Your task to perform on an android device: turn pop-ups off in chrome Image 0: 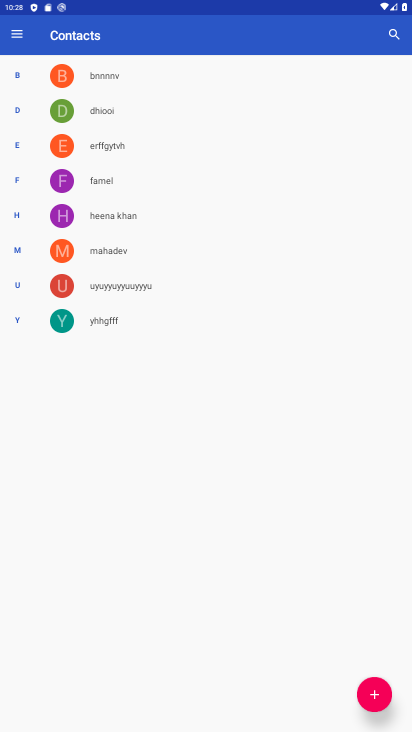
Step 0: press home button
Your task to perform on an android device: turn pop-ups off in chrome Image 1: 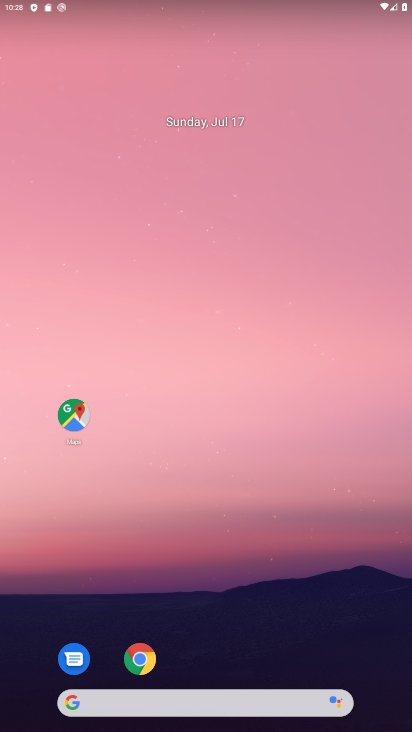
Step 1: drag from (281, 673) to (267, 77)
Your task to perform on an android device: turn pop-ups off in chrome Image 2: 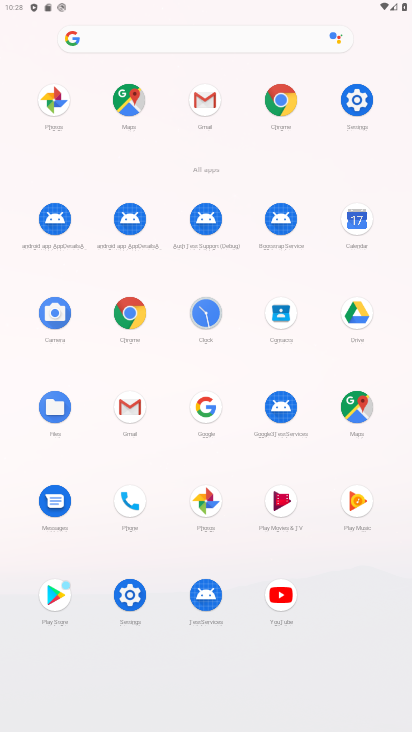
Step 2: click (124, 317)
Your task to perform on an android device: turn pop-ups off in chrome Image 3: 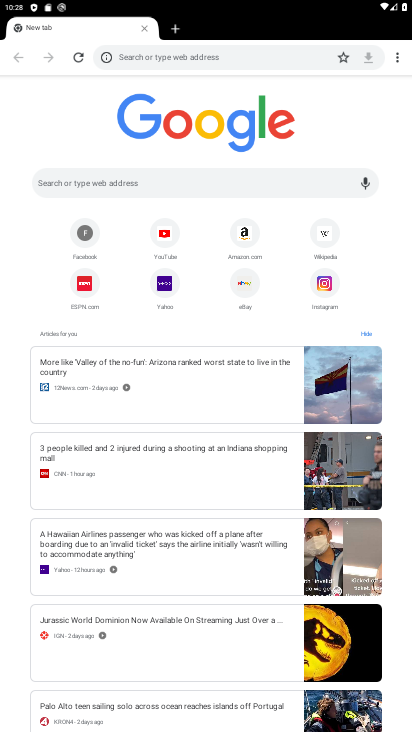
Step 3: drag from (404, 57) to (276, 293)
Your task to perform on an android device: turn pop-ups off in chrome Image 4: 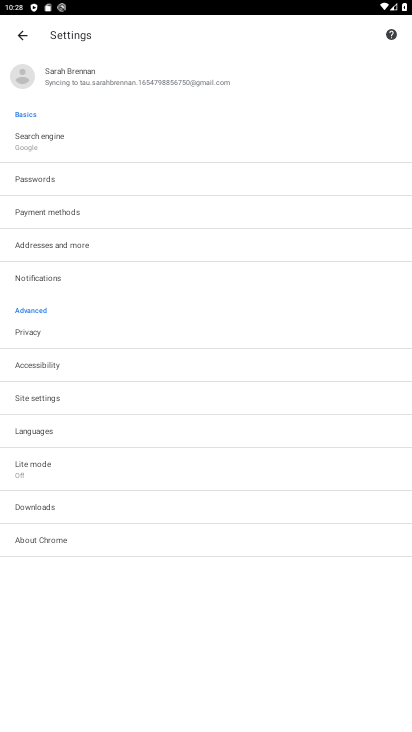
Step 4: click (48, 390)
Your task to perform on an android device: turn pop-ups off in chrome Image 5: 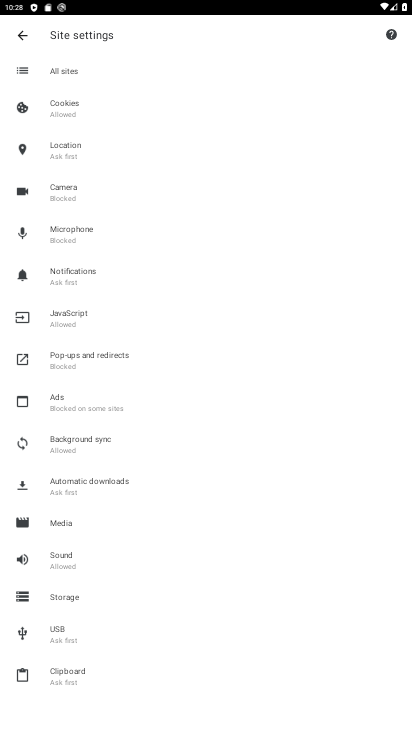
Step 5: click (81, 367)
Your task to perform on an android device: turn pop-ups off in chrome Image 6: 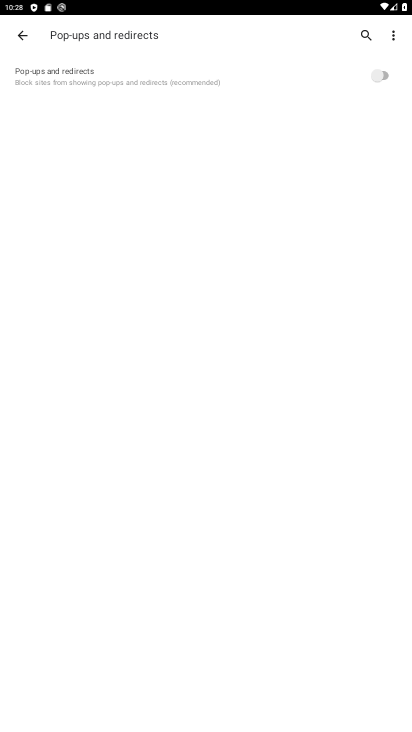
Step 6: task complete